Your task to perform on an android device: Go to wifi settings Image 0: 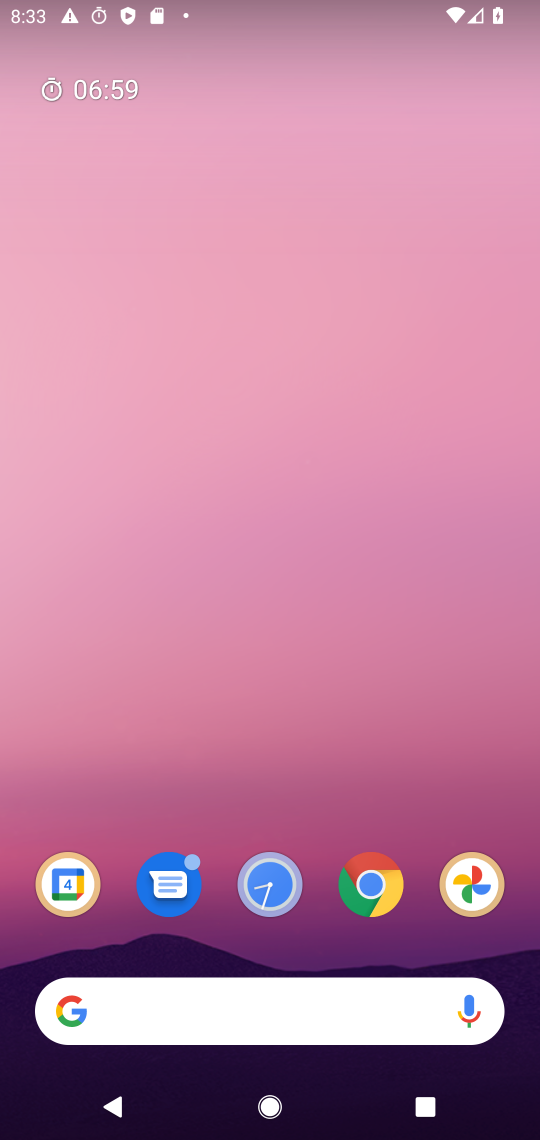
Step 0: press home button
Your task to perform on an android device: Go to wifi settings Image 1: 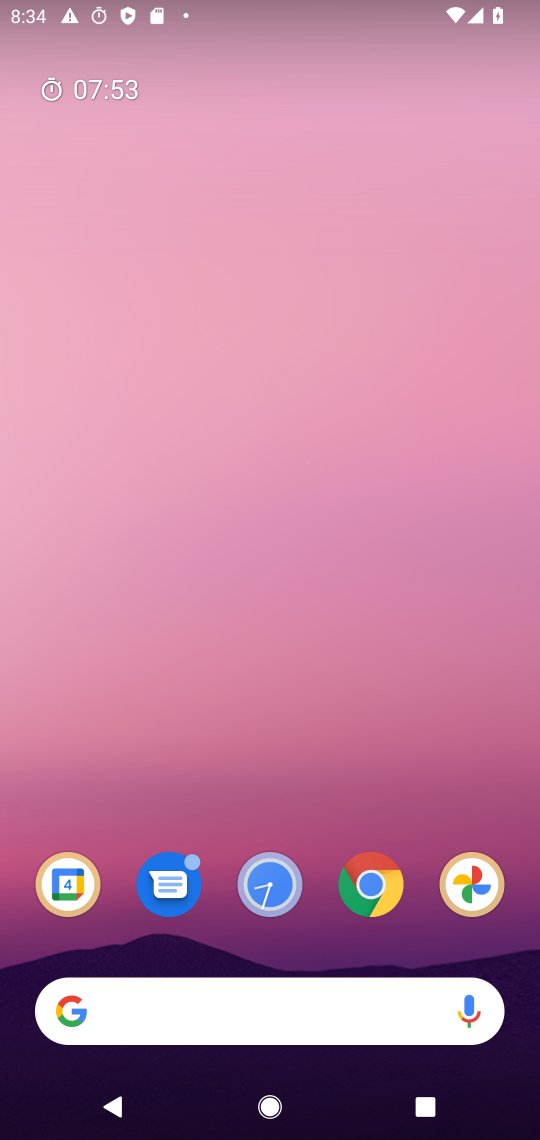
Step 1: drag from (329, 951) to (424, 61)
Your task to perform on an android device: Go to wifi settings Image 2: 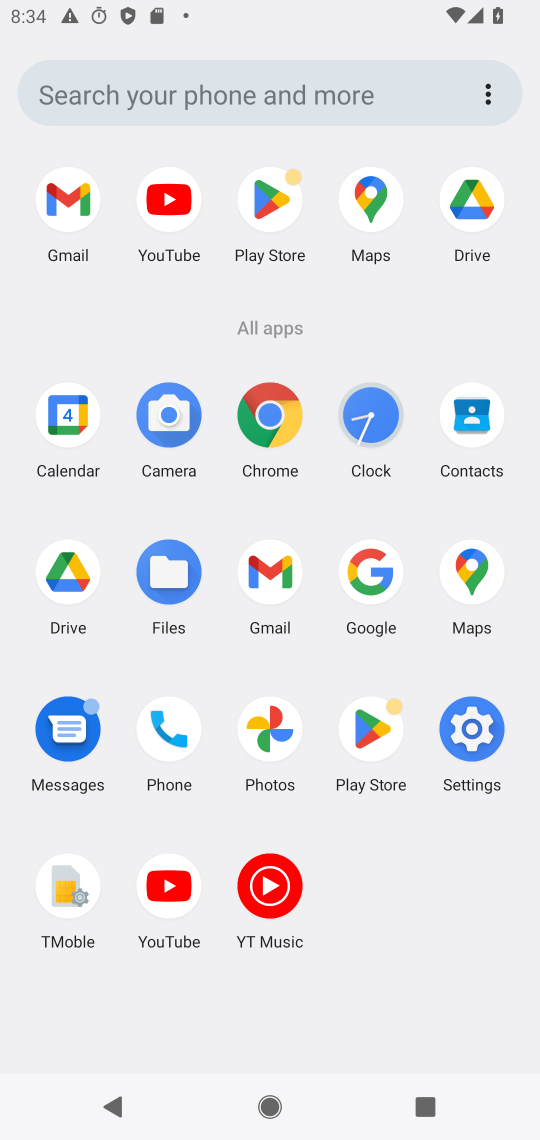
Step 2: click (478, 736)
Your task to perform on an android device: Go to wifi settings Image 3: 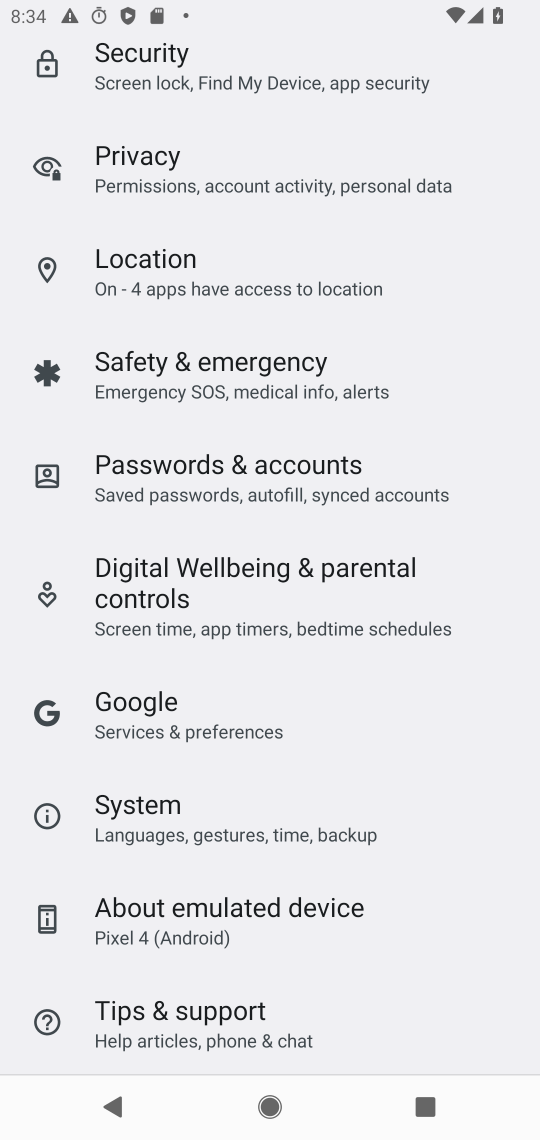
Step 3: drag from (301, 152) to (317, 1116)
Your task to perform on an android device: Go to wifi settings Image 4: 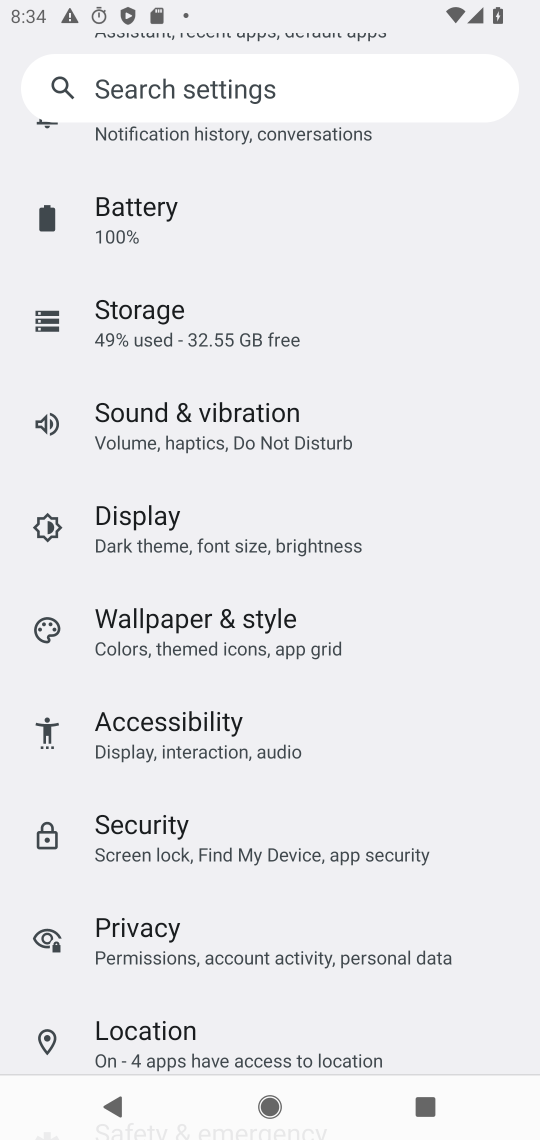
Step 4: drag from (363, 159) to (407, 871)
Your task to perform on an android device: Go to wifi settings Image 5: 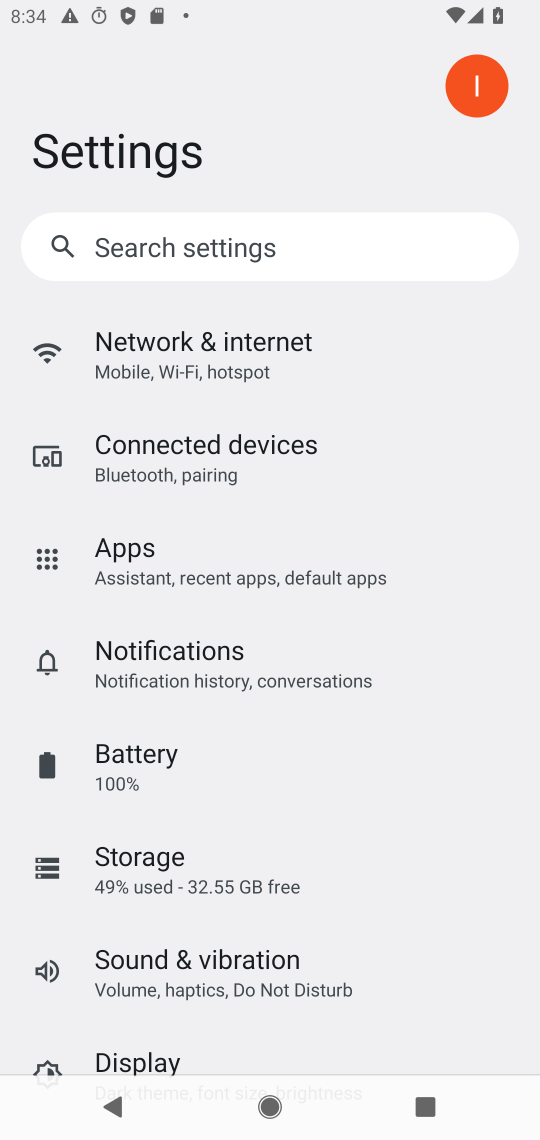
Step 5: click (190, 371)
Your task to perform on an android device: Go to wifi settings Image 6: 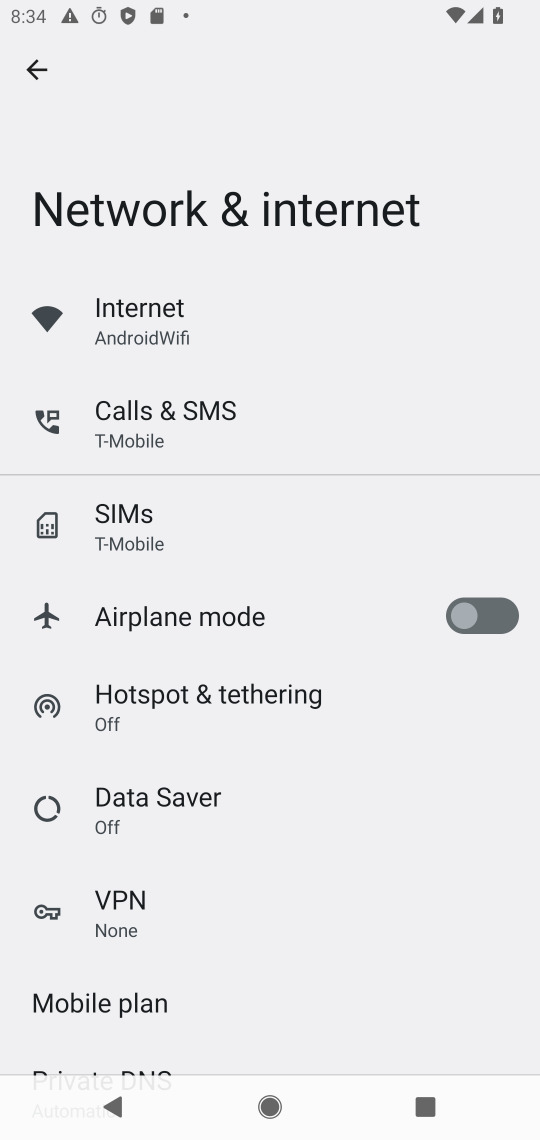
Step 6: click (142, 303)
Your task to perform on an android device: Go to wifi settings Image 7: 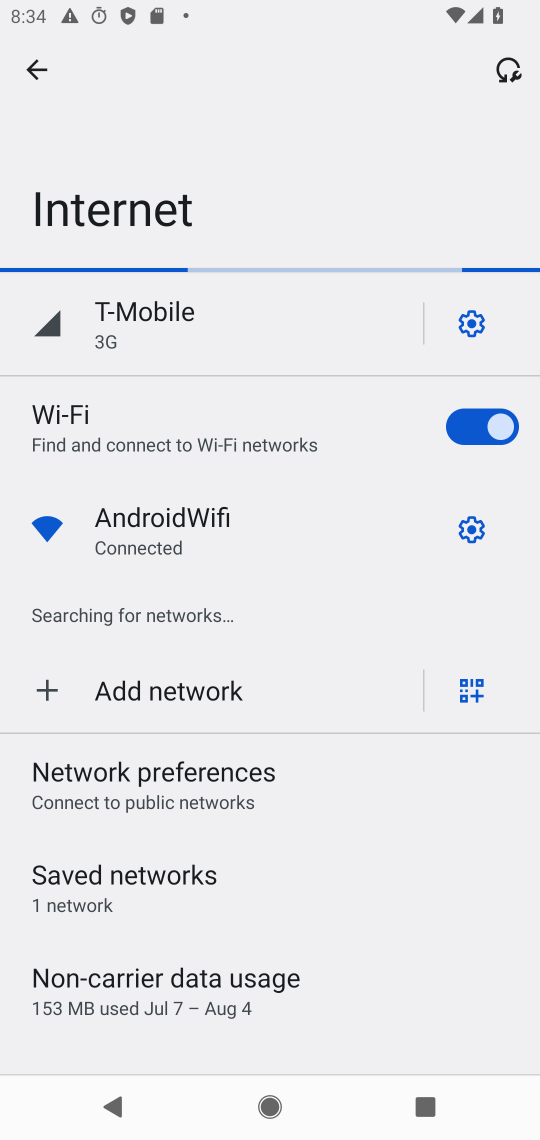
Step 7: click (122, 441)
Your task to perform on an android device: Go to wifi settings Image 8: 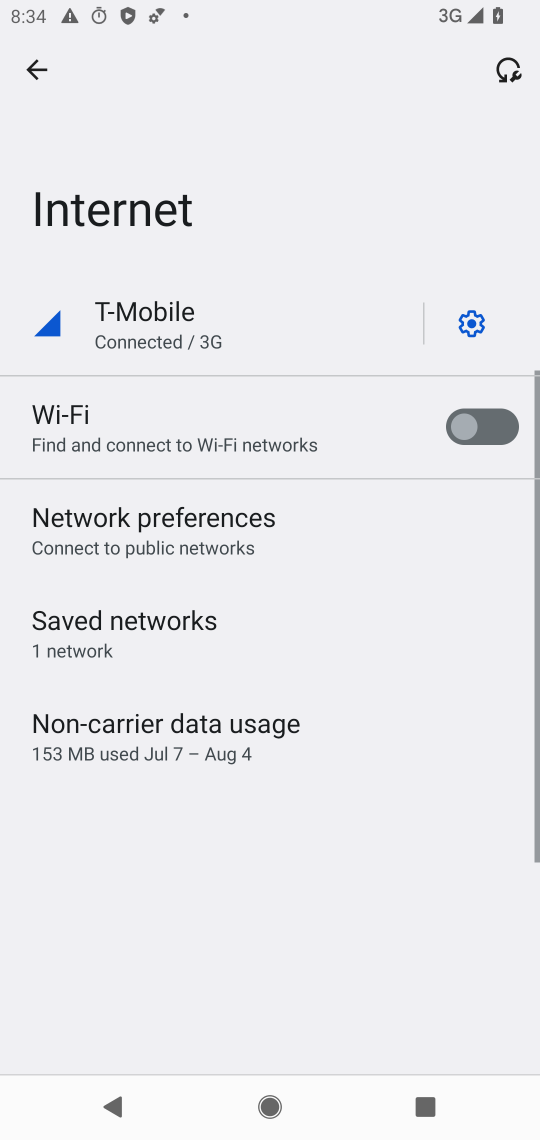
Step 8: click (122, 441)
Your task to perform on an android device: Go to wifi settings Image 9: 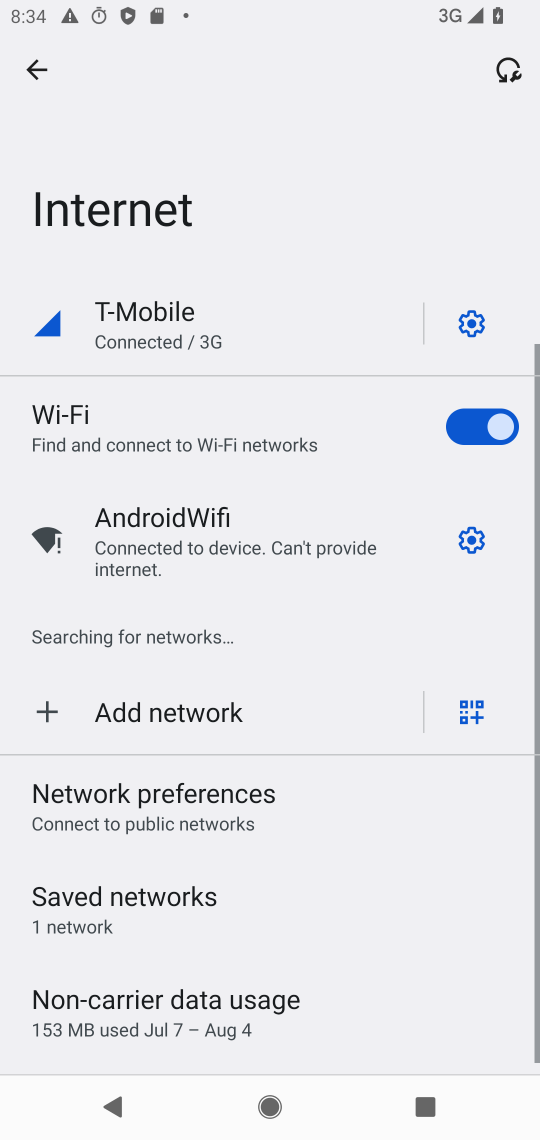
Step 9: click (149, 514)
Your task to perform on an android device: Go to wifi settings Image 10: 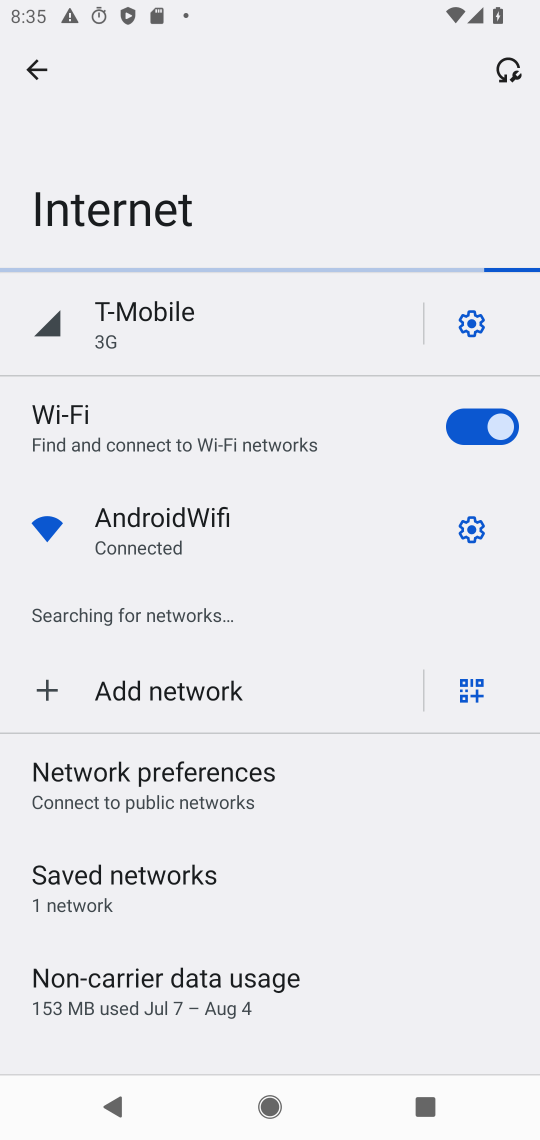
Step 10: task complete